Your task to perform on an android device: turn on location history Image 0: 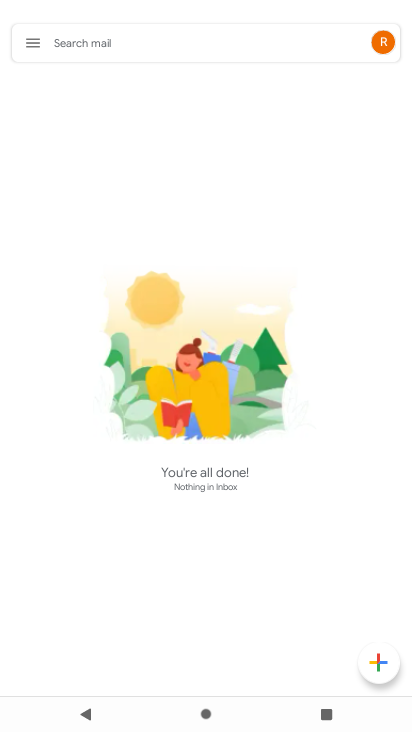
Step 0: press home button
Your task to perform on an android device: turn on location history Image 1: 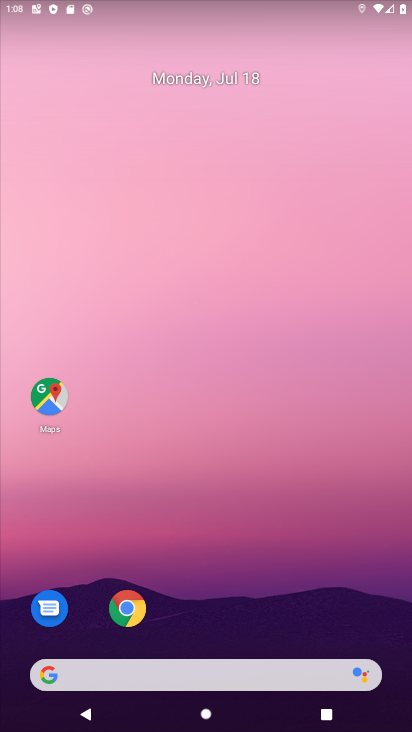
Step 1: drag from (318, 628) to (220, 99)
Your task to perform on an android device: turn on location history Image 2: 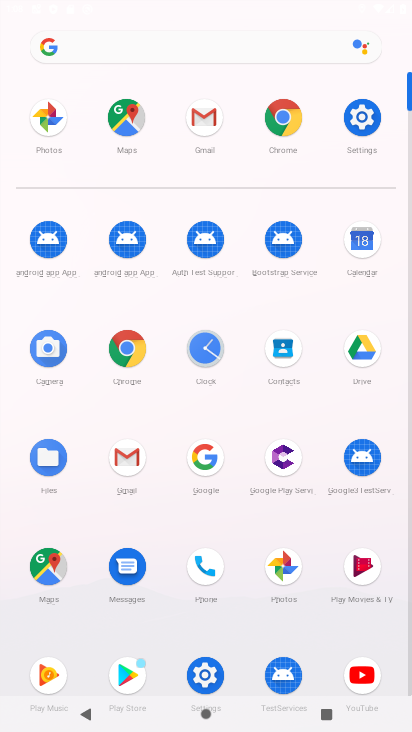
Step 2: click (122, 109)
Your task to perform on an android device: turn on location history Image 3: 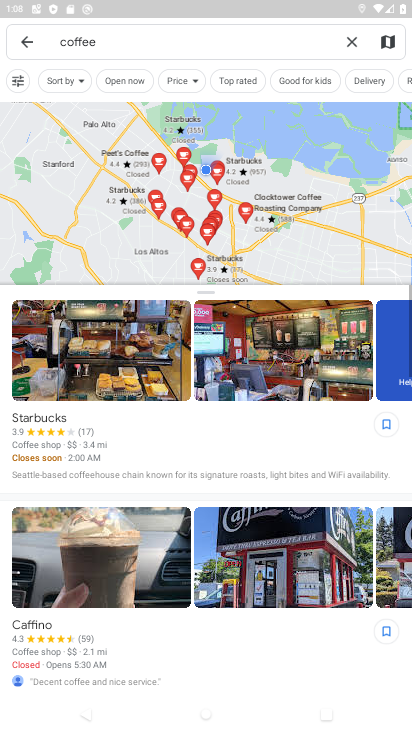
Step 3: click (24, 40)
Your task to perform on an android device: turn on location history Image 4: 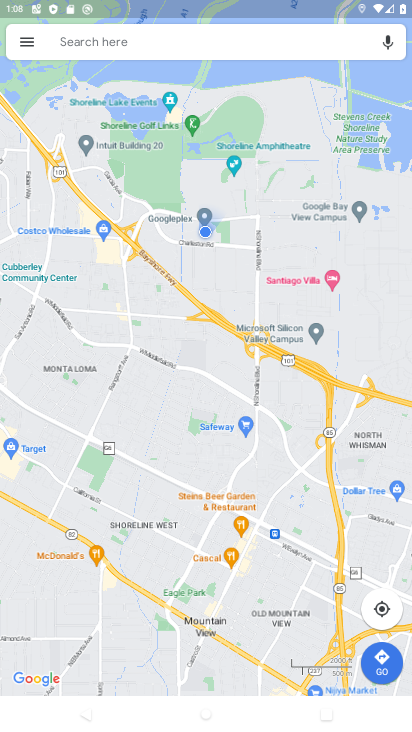
Step 4: click (24, 40)
Your task to perform on an android device: turn on location history Image 5: 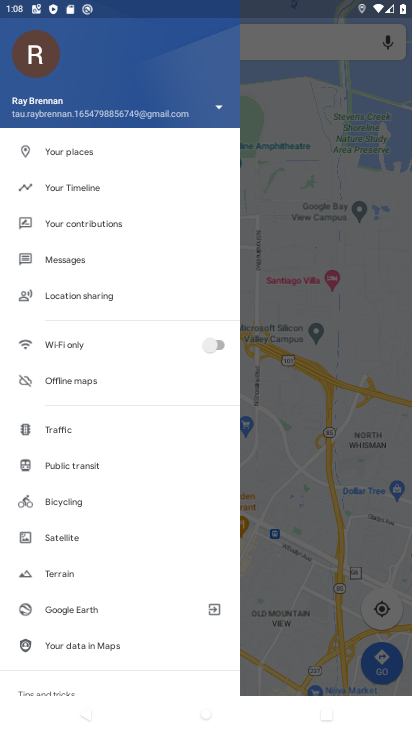
Step 5: click (74, 181)
Your task to perform on an android device: turn on location history Image 6: 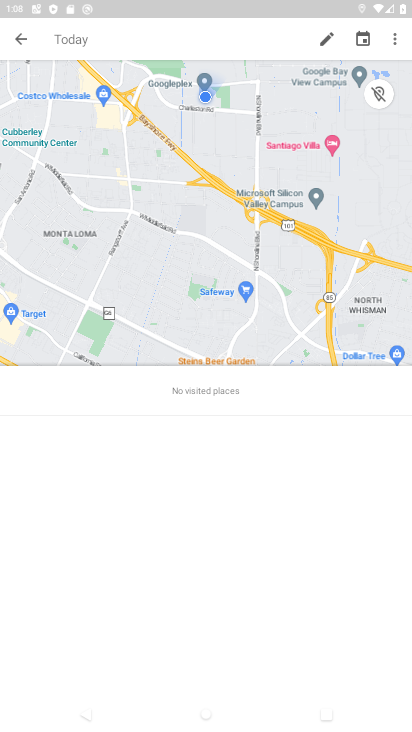
Step 6: click (392, 42)
Your task to perform on an android device: turn on location history Image 7: 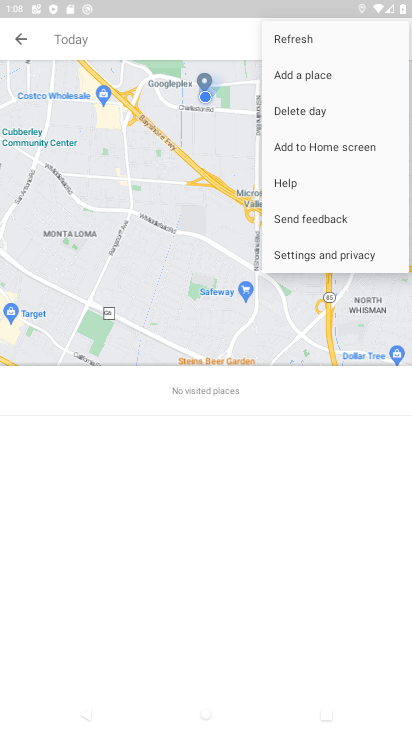
Step 7: click (368, 264)
Your task to perform on an android device: turn on location history Image 8: 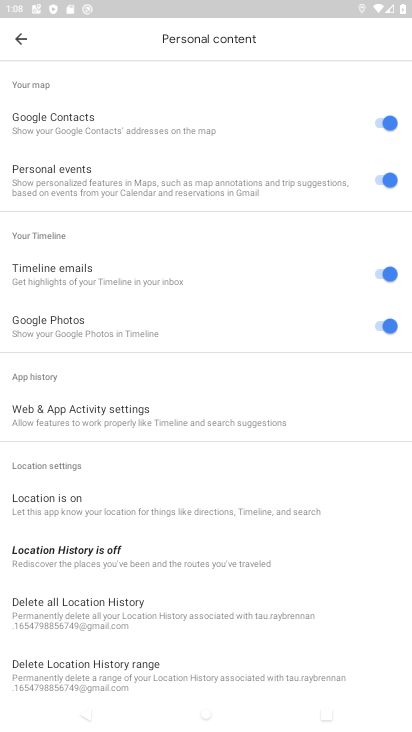
Step 8: click (217, 559)
Your task to perform on an android device: turn on location history Image 9: 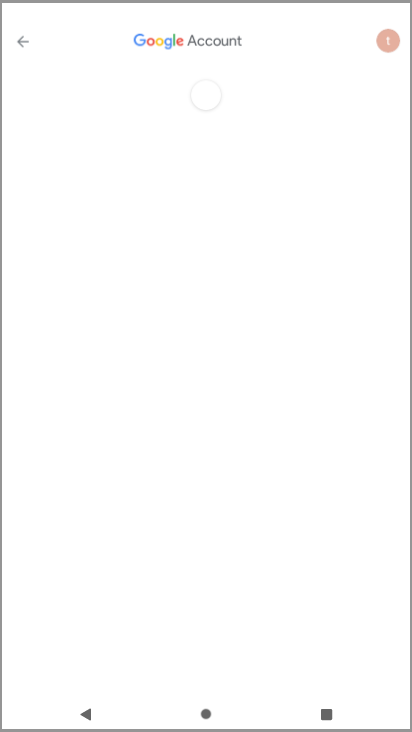
Step 9: click (128, 561)
Your task to perform on an android device: turn on location history Image 10: 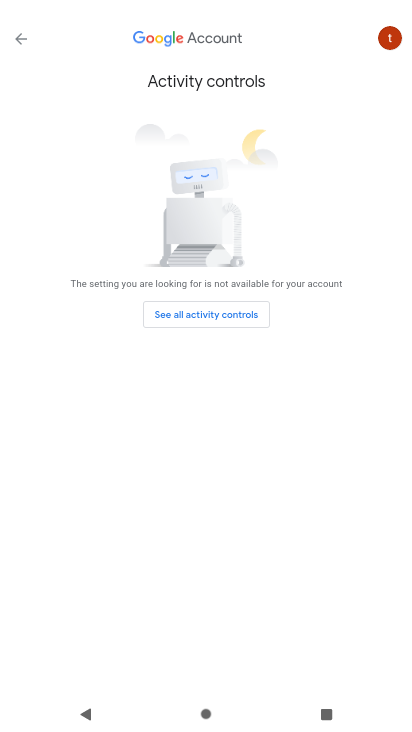
Step 10: click (211, 318)
Your task to perform on an android device: turn on location history Image 11: 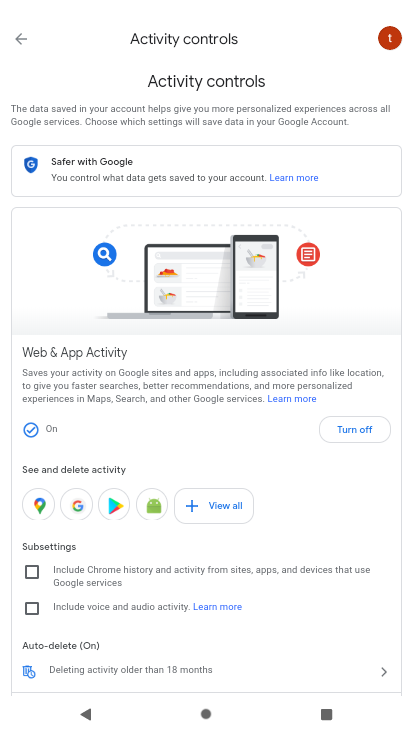
Step 11: task complete